Your task to perform on an android device: see sites visited before in the chrome app Image 0: 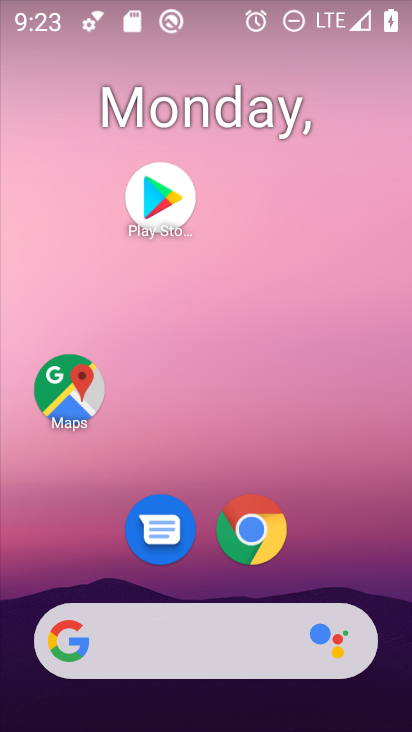
Step 0: click (250, 523)
Your task to perform on an android device: see sites visited before in the chrome app Image 1: 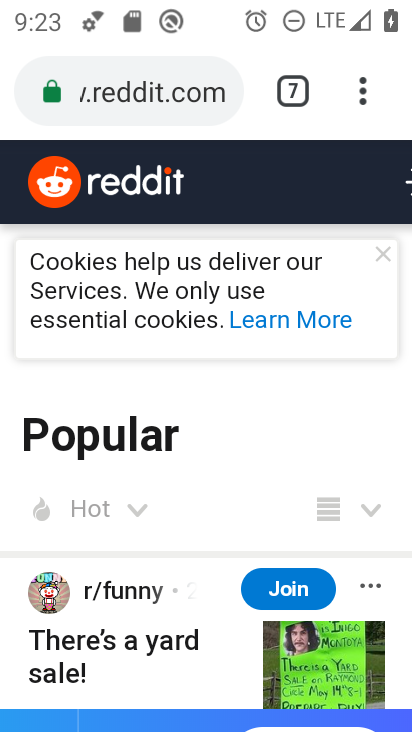
Step 1: click (360, 86)
Your task to perform on an android device: see sites visited before in the chrome app Image 2: 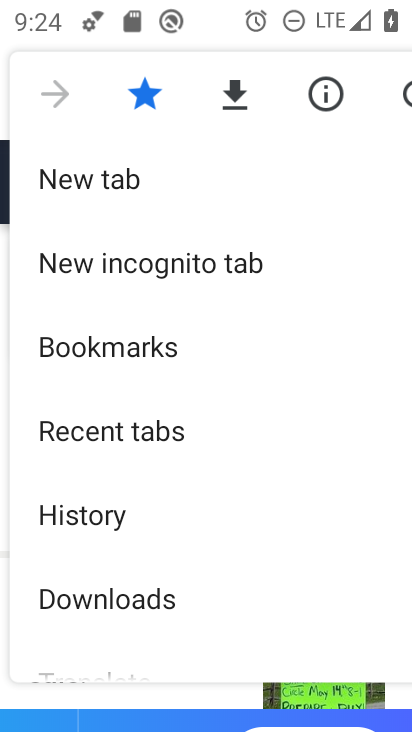
Step 2: click (250, 527)
Your task to perform on an android device: see sites visited before in the chrome app Image 3: 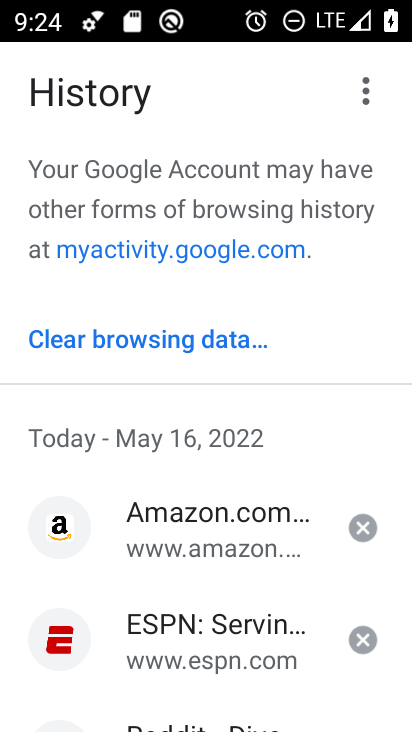
Step 3: task complete